Your task to perform on an android device: uninstall "Google Pay: Save, Pay, Manage" Image 0: 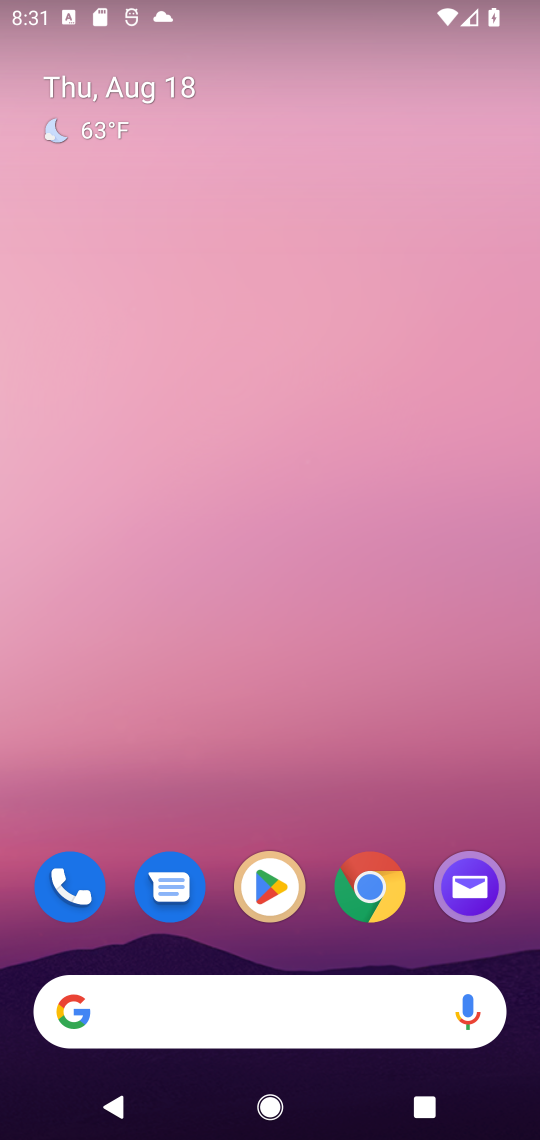
Step 0: click (258, 876)
Your task to perform on an android device: uninstall "Google Pay: Save, Pay, Manage" Image 1: 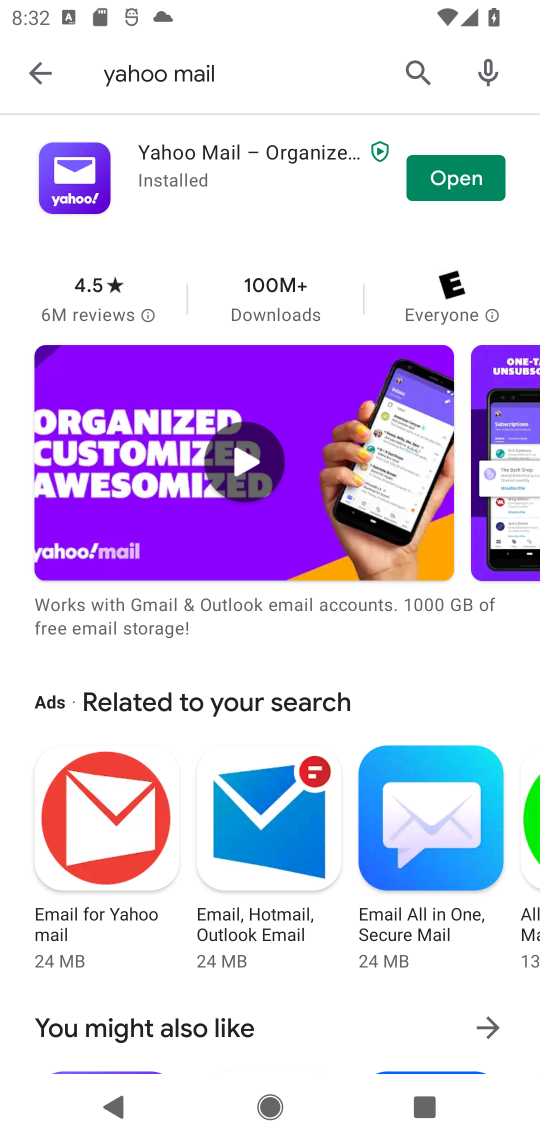
Step 1: click (207, 158)
Your task to perform on an android device: uninstall "Google Pay: Save, Pay, Manage" Image 2: 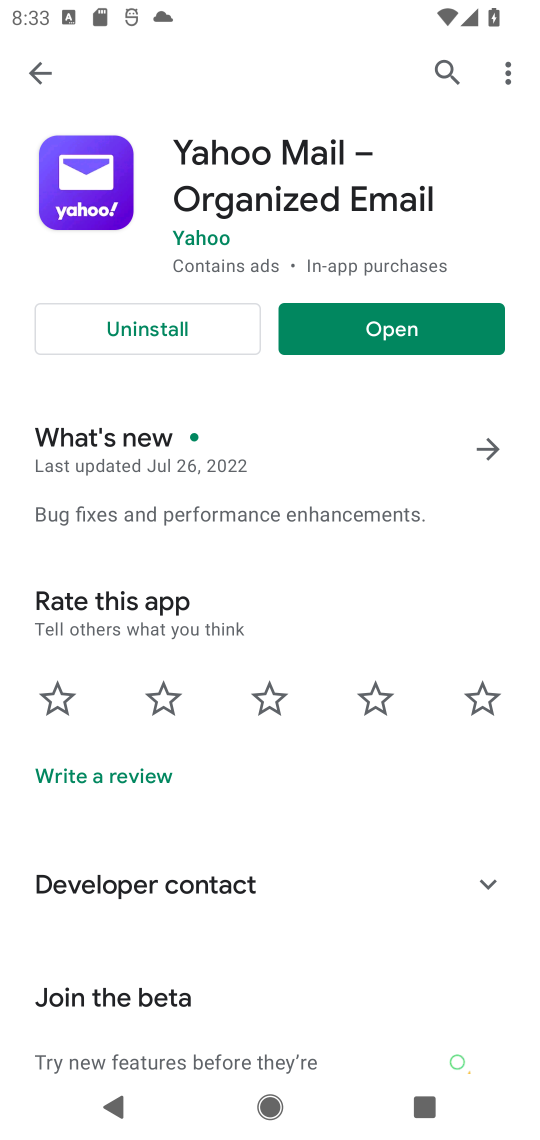
Step 2: click (437, 73)
Your task to perform on an android device: uninstall "Google Pay: Save, Pay, Manage" Image 3: 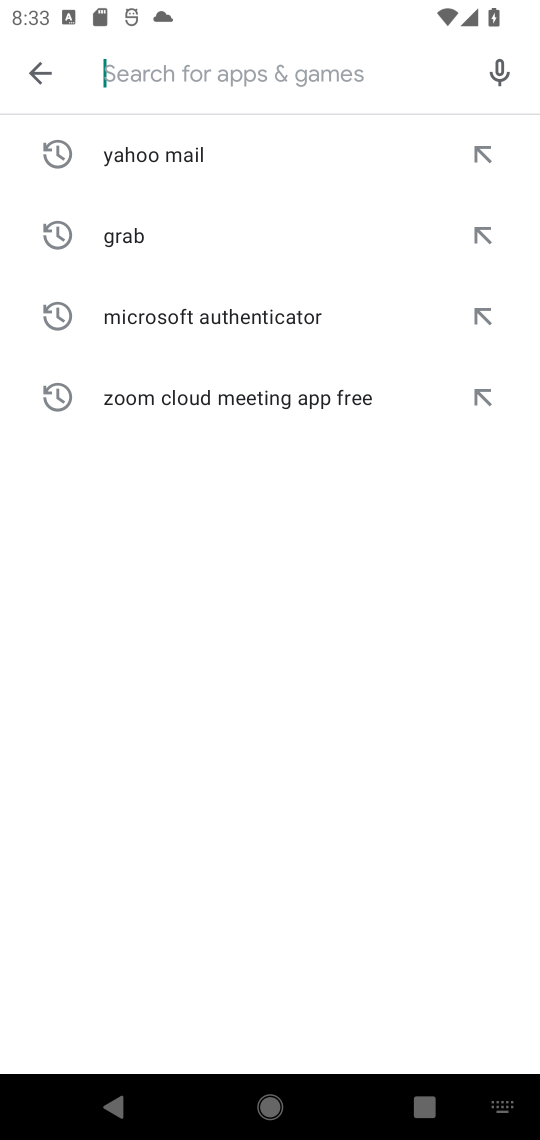
Step 3: type "Google Pay: Save, Pay, Manage"
Your task to perform on an android device: uninstall "Google Pay: Save, Pay, Manage" Image 4: 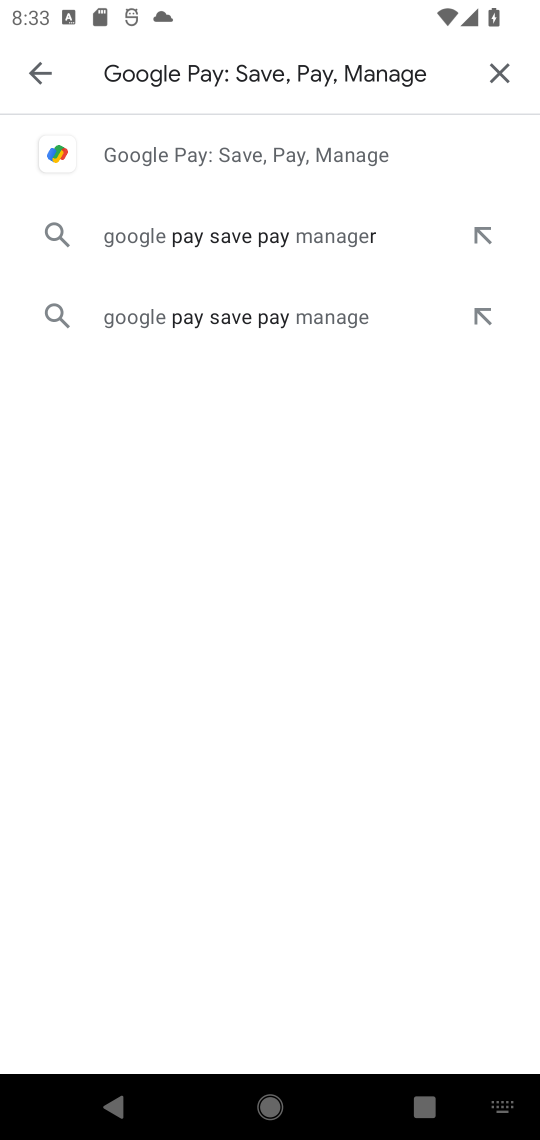
Step 4: click (144, 155)
Your task to perform on an android device: uninstall "Google Pay: Save, Pay, Manage" Image 5: 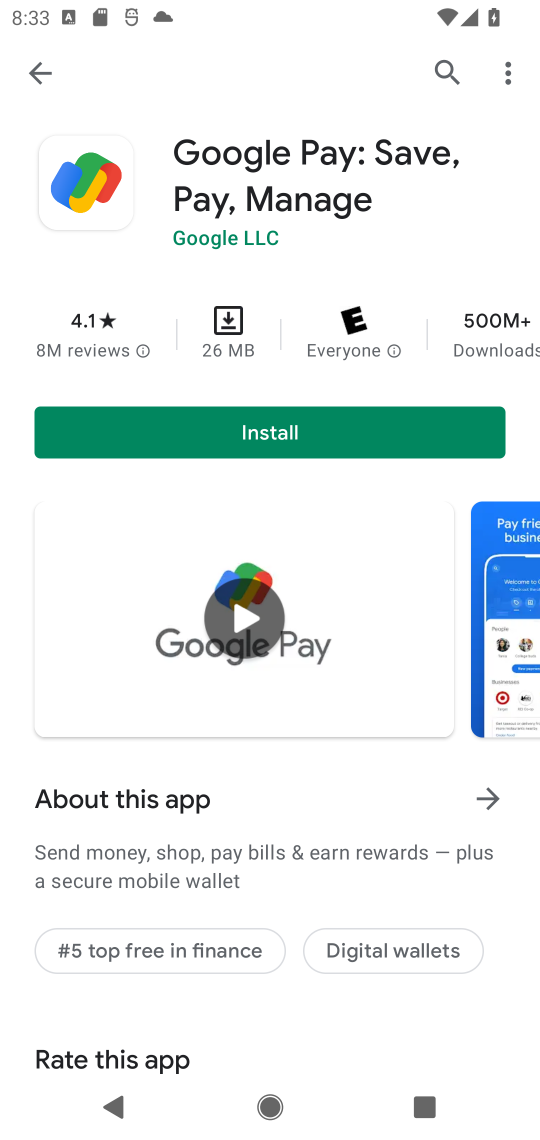
Step 5: task complete